Your task to perform on an android device: Set the phone to "Do not disturb". Image 0: 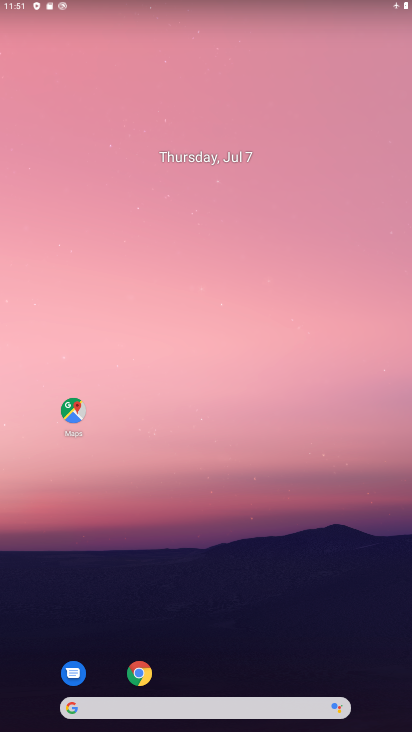
Step 0: click (274, 406)
Your task to perform on an android device: Set the phone to "Do not disturb". Image 1: 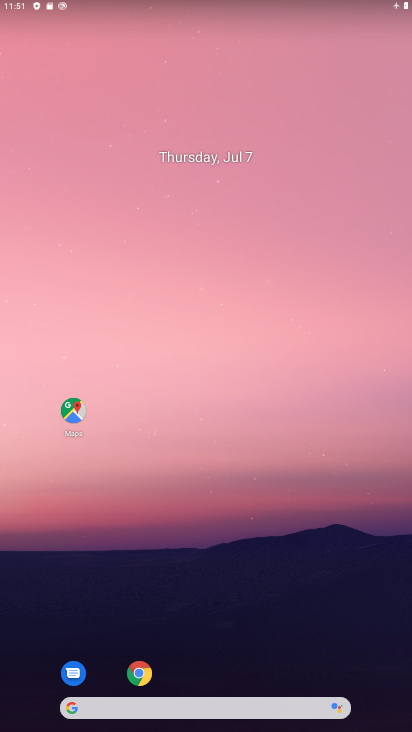
Step 1: click (309, 197)
Your task to perform on an android device: Set the phone to "Do not disturb". Image 2: 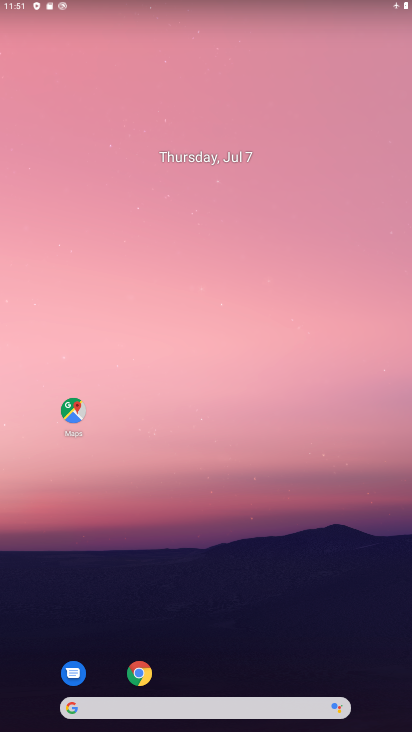
Step 2: click (322, 3)
Your task to perform on an android device: Set the phone to "Do not disturb". Image 3: 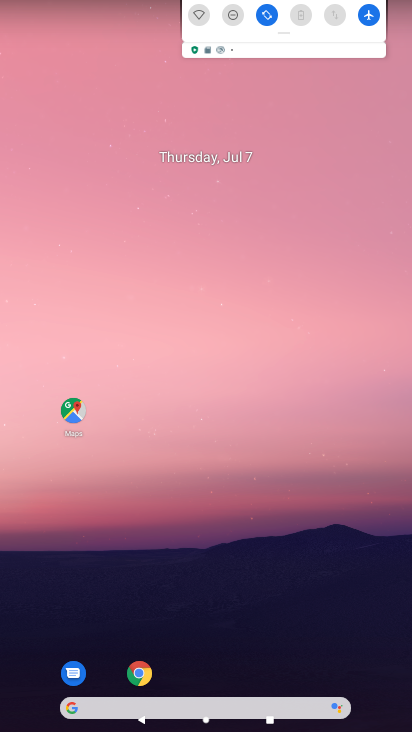
Step 3: click (317, 115)
Your task to perform on an android device: Set the phone to "Do not disturb". Image 4: 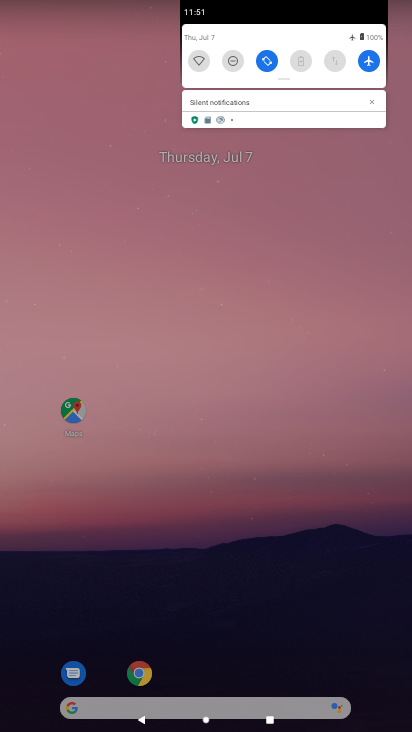
Step 4: click (324, 125)
Your task to perform on an android device: Set the phone to "Do not disturb". Image 5: 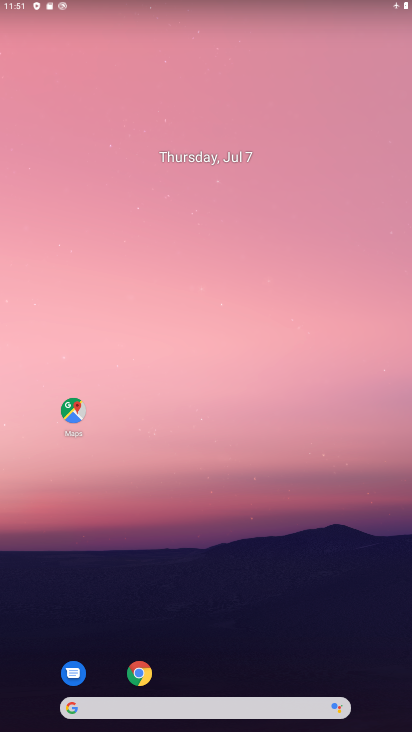
Step 5: drag from (285, 3) to (264, 268)
Your task to perform on an android device: Set the phone to "Do not disturb". Image 6: 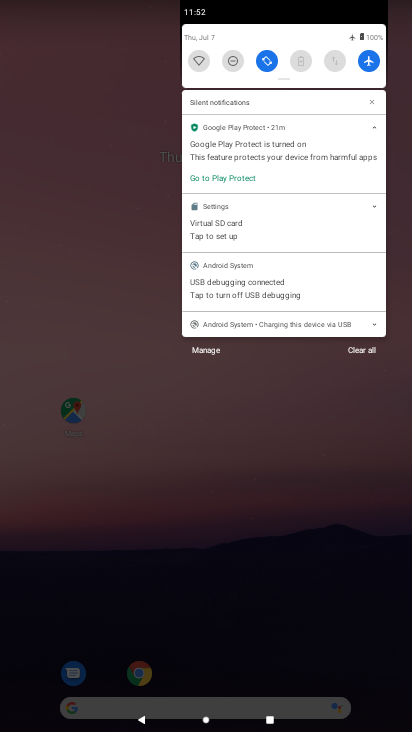
Step 6: click (278, 76)
Your task to perform on an android device: Set the phone to "Do not disturb". Image 7: 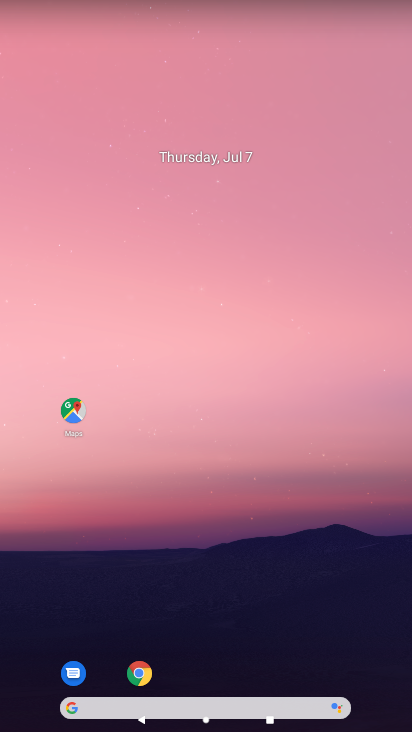
Step 7: click (279, 196)
Your task to perform on an android device: Set the phone to "Do not disturb". Image 8: 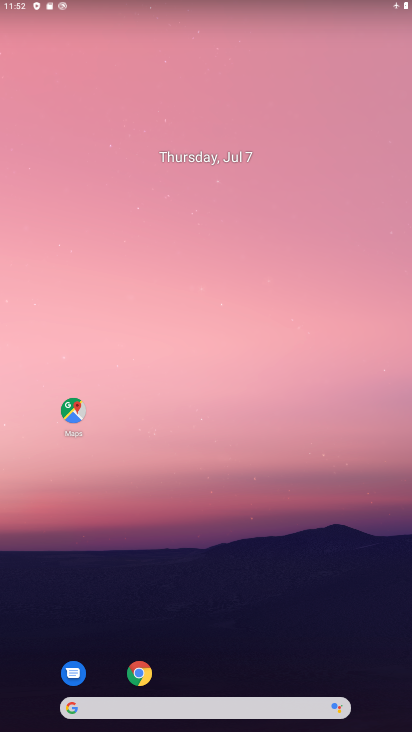
Step 8: click (267, 180)
Your task to perform on an android device: Set the phone to "Do not disturb". Image 9: 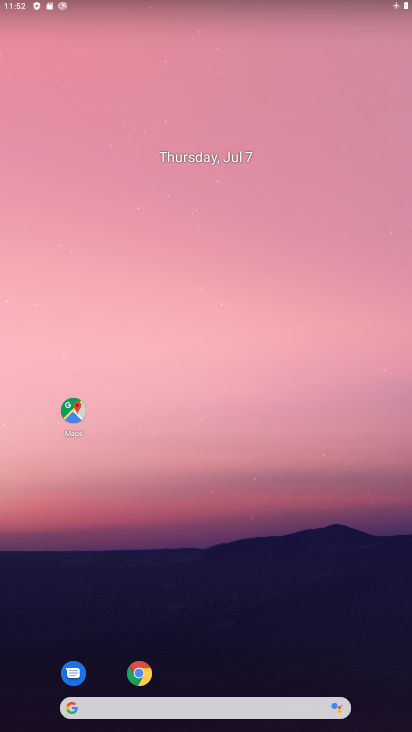
Step 9: click (255, 314)
Your task to perform on an android device: Set the phone to "Do not disturb". Image 10: 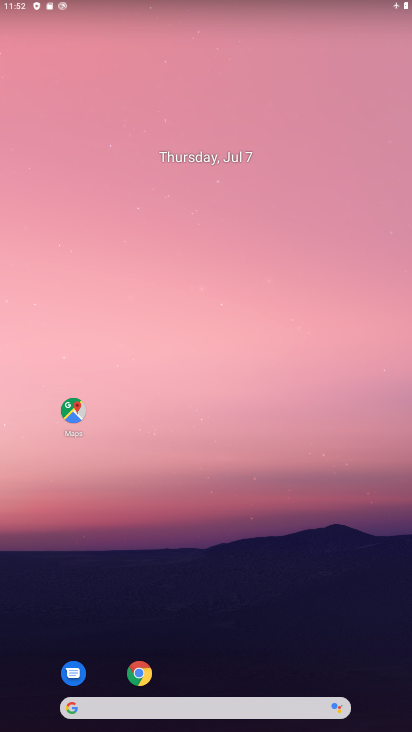
Step 10: drag from (267, 1) to (292, 334)
Your task to perform on an android device: Set the phone to "Do not disturb". Image 11: 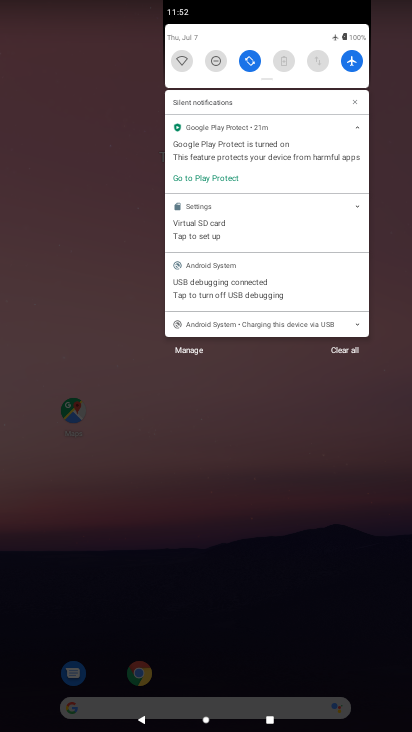
Step 11: click (217, 81)
Your task to perform on an android device: Set the phone to "Do not disturb". Image 12: 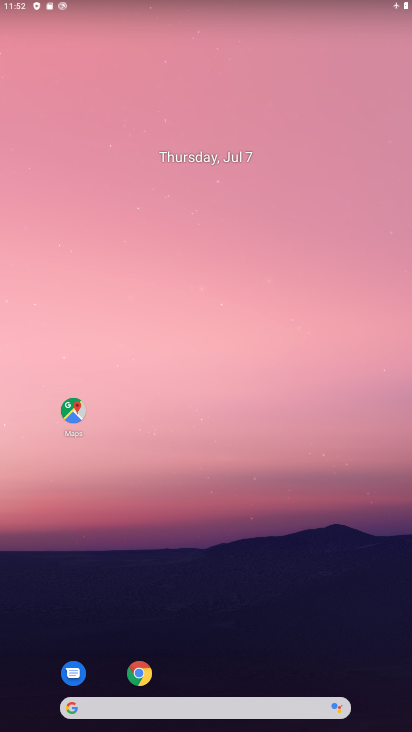
Step 12: click (215, 63)
Your task to perform on an android device: Set the phone to "Do not disturb". Image 13: 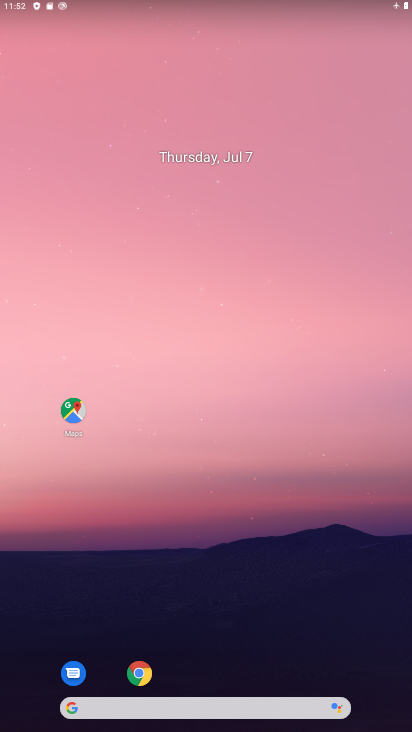
Step 13: click (277, 379)
Your task to perform on an android device: Set the phone to "Do not disturb". Image 14: 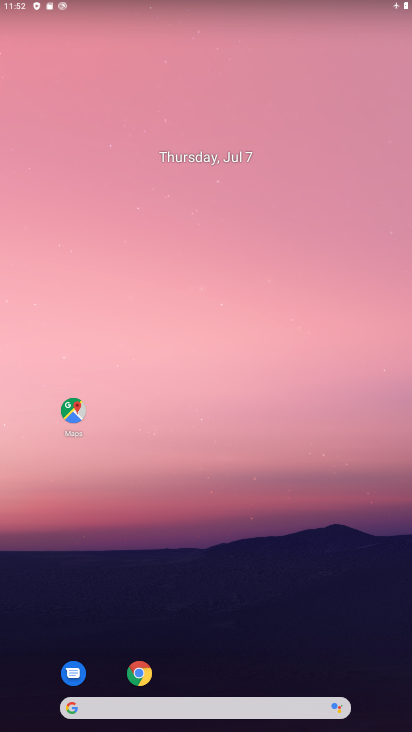
Step 14: drag from (246, 72) to (282, 134)
Your task to perform on an android device: Set the phone to "Do not disturb". Image 15: 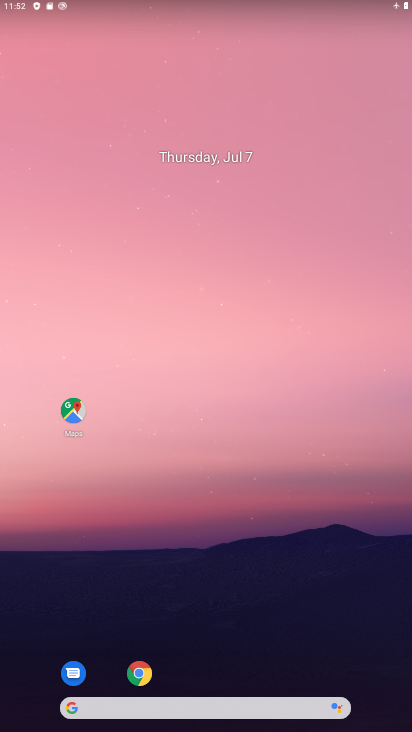
Step 15: click (285, 243)
Your task to perform on an android device: Set the phone to "Do not disturb". Image 16: 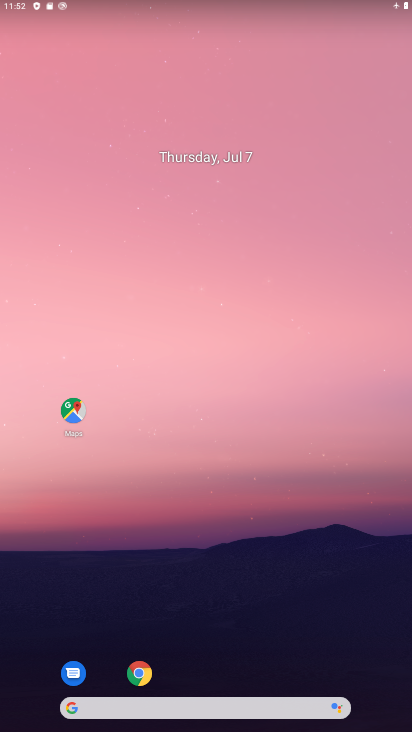
Step 16: drag from (267, 0) to (257, 258)
Your task to perform on an android device: Set the phone to "Do not disturb". Image 17: 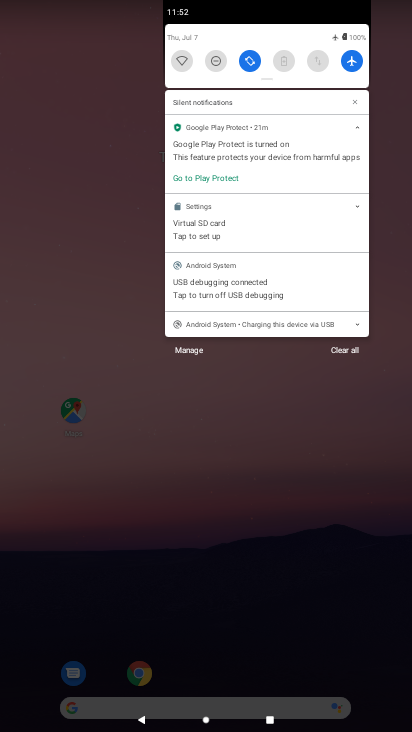
Step 17: click (215, 60)
Your task to perform on an android device: Set the phone to "Do not disturb". Image 18: 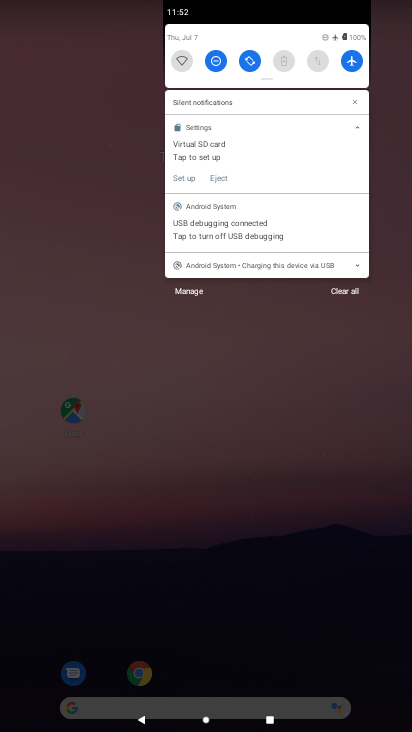
Step 18: task complete